Your task to perform on an android device: Search for flights from Boston to Zurich Image 0: 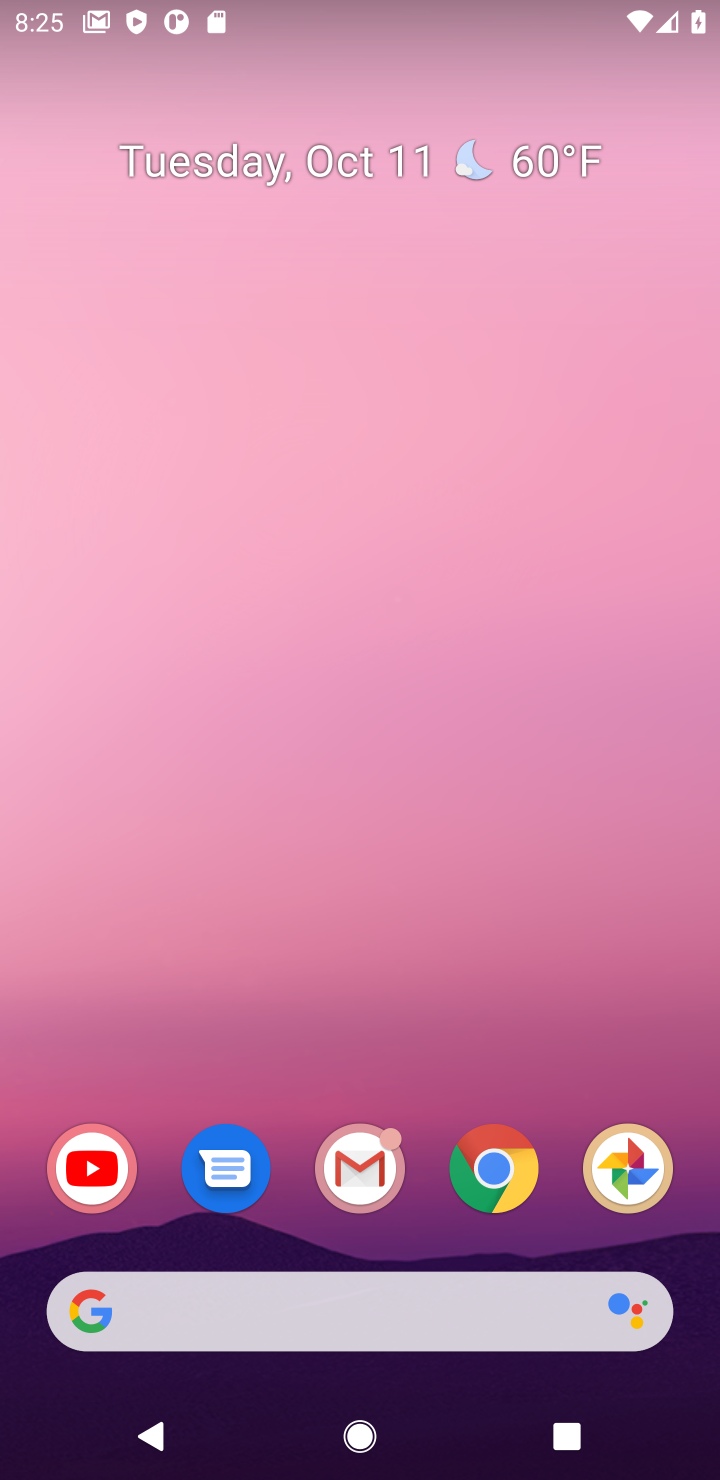
Step 0: click (484, 1160)
Your task to perform on an android device: Search for flights from Boston to Zurich Image 1: 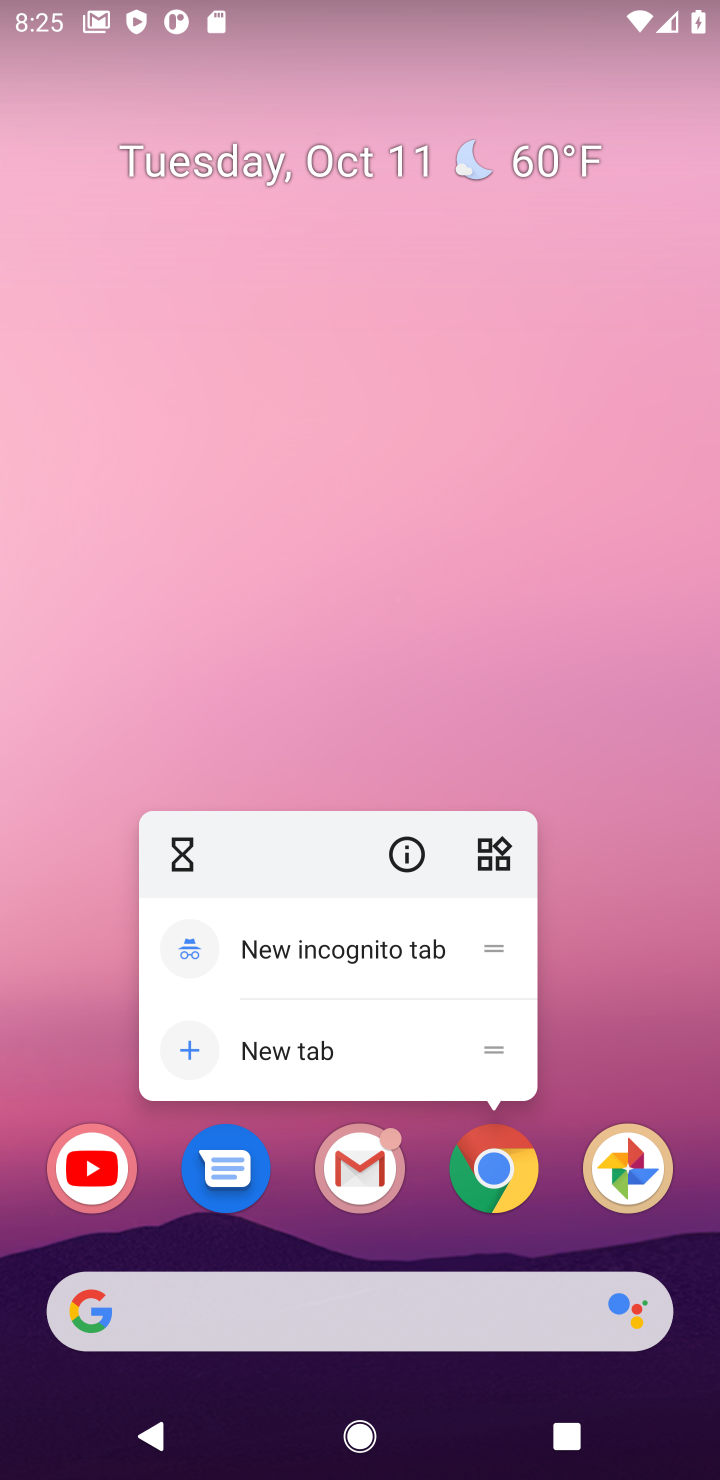
Step 1: click (506, 1177)
Your task to perform on an android device: Search for flights from Boston to Zurich Image 2: 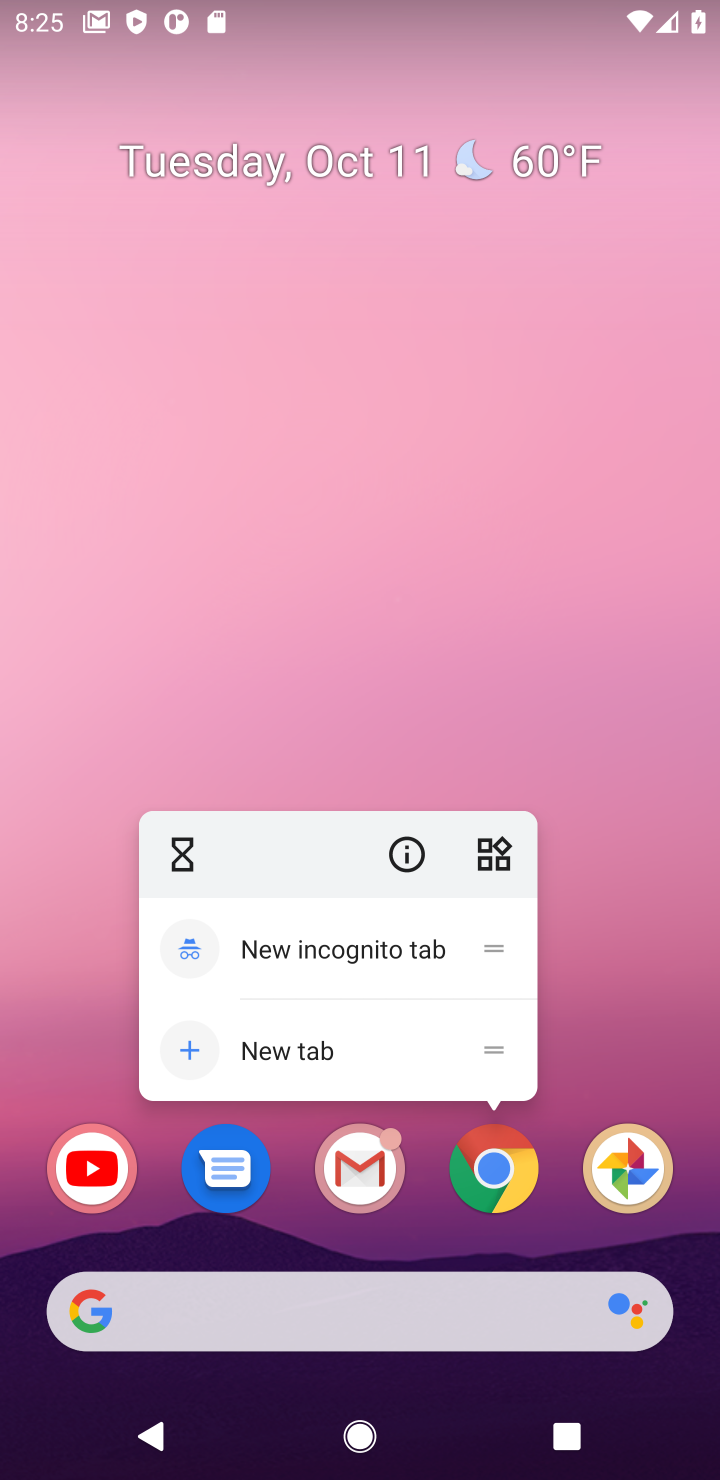
Step 2: press back button
Your task to perform on an android device: Search for flights from Boston to Zurich Image 3: 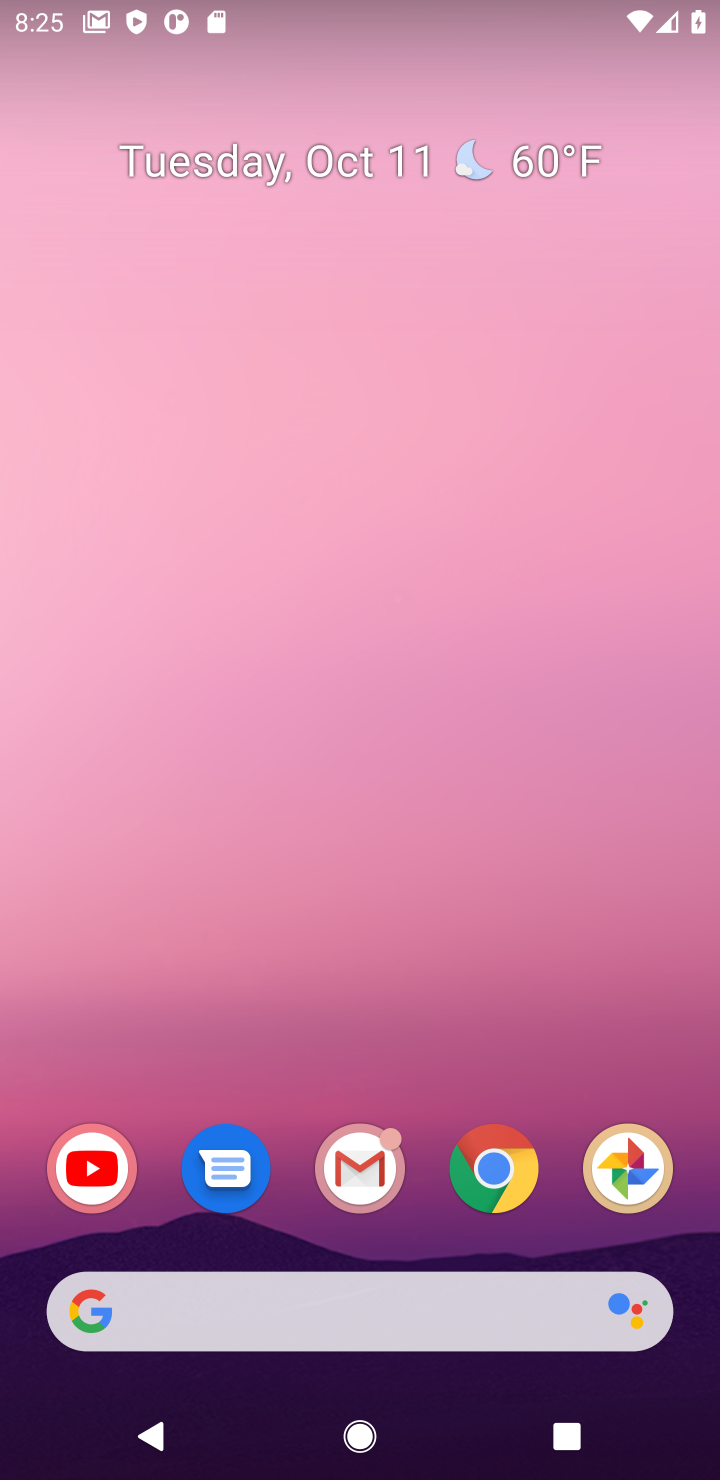
Step 3: click (506, 1182)
Your task to perform on an android device: Search for flights from Boston to Zurich Image 4: 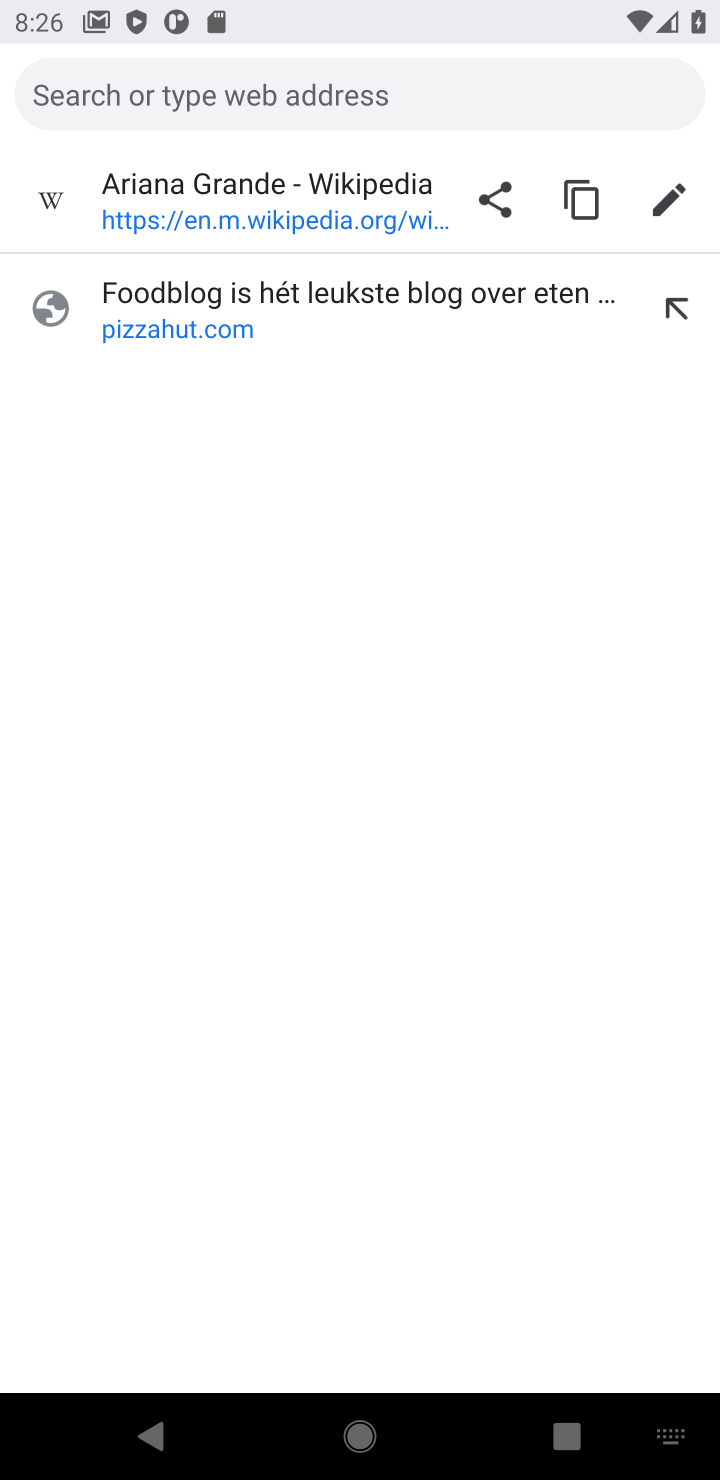
Step 4: type "flight from boston to zurich"
Your task to perform on an android device: Search for flights from Boston to Zurich Image 5: 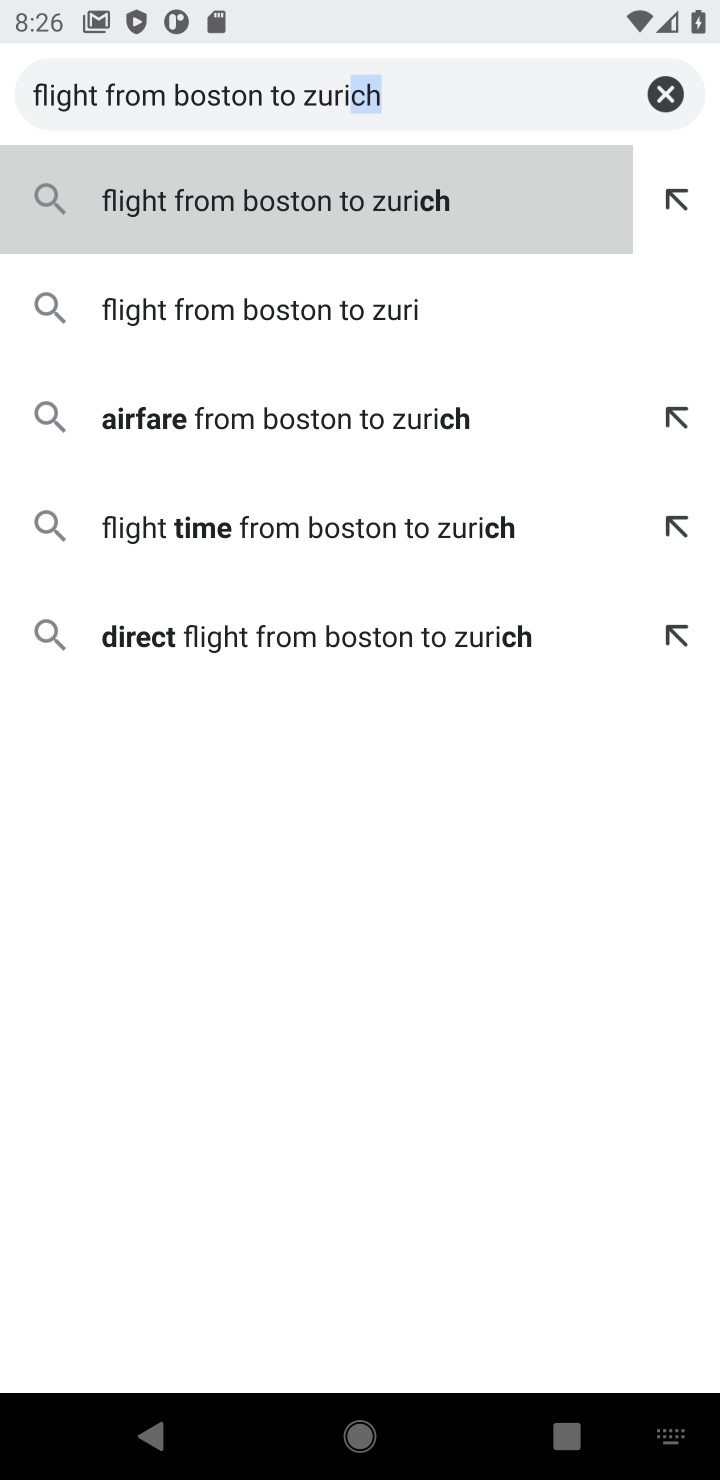
Step 5: click (438, 182)
Your task to perform on an android device: Search for flights from Boston to Zurich Image 6: 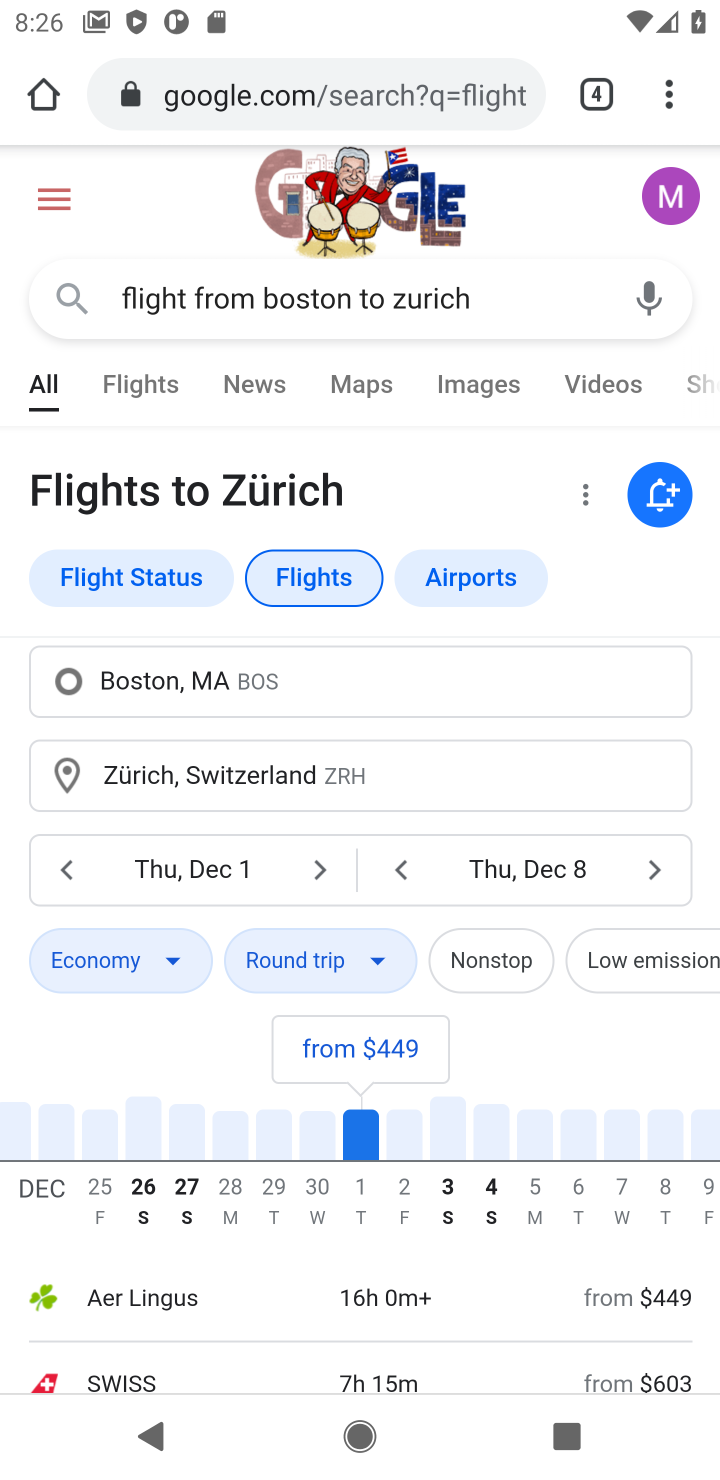
Step 6: drag from (507, 1091) to (507, 570)
Your task to perform on an android device: Search for flights from Boston to Zurich Image 7: 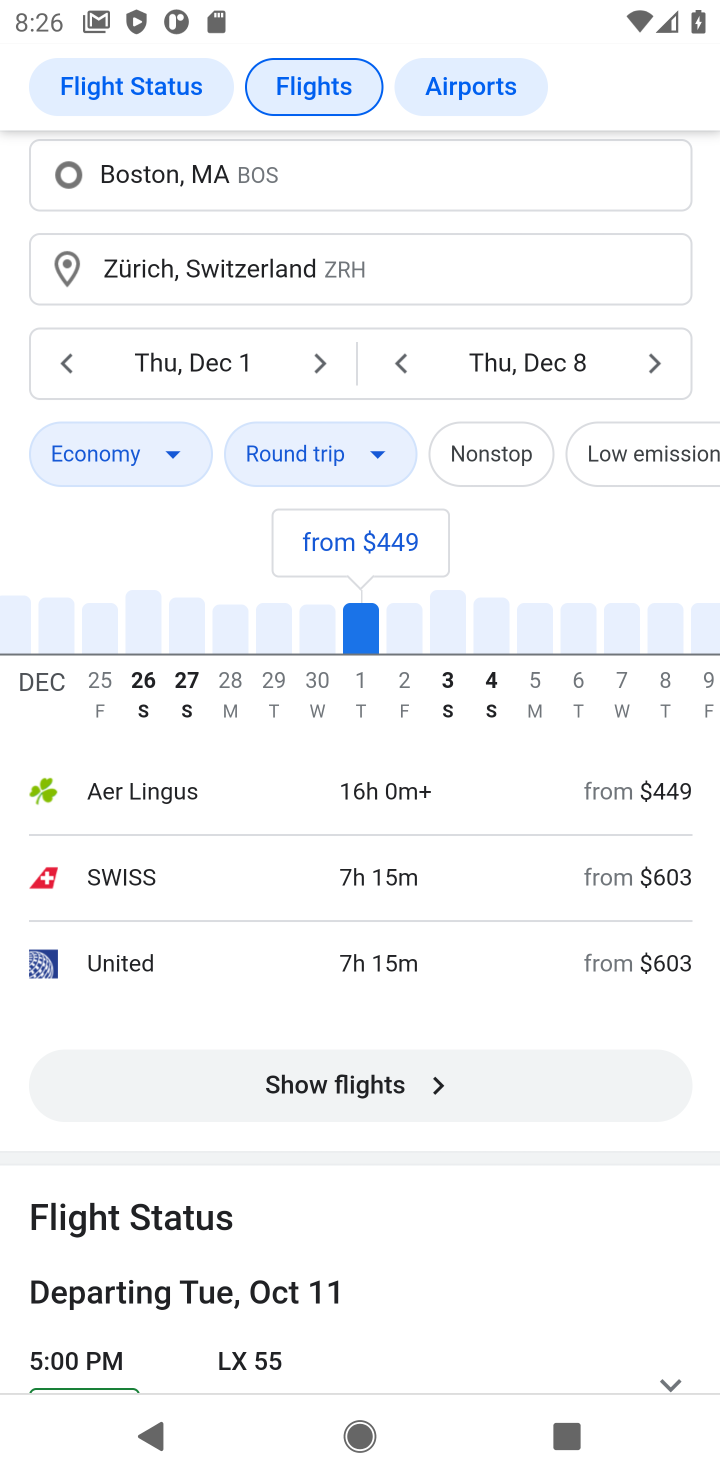
Step 7: click (391, 1083)
Your task to perform on an android device: Search for flights from Boston to Zurich Image 8: 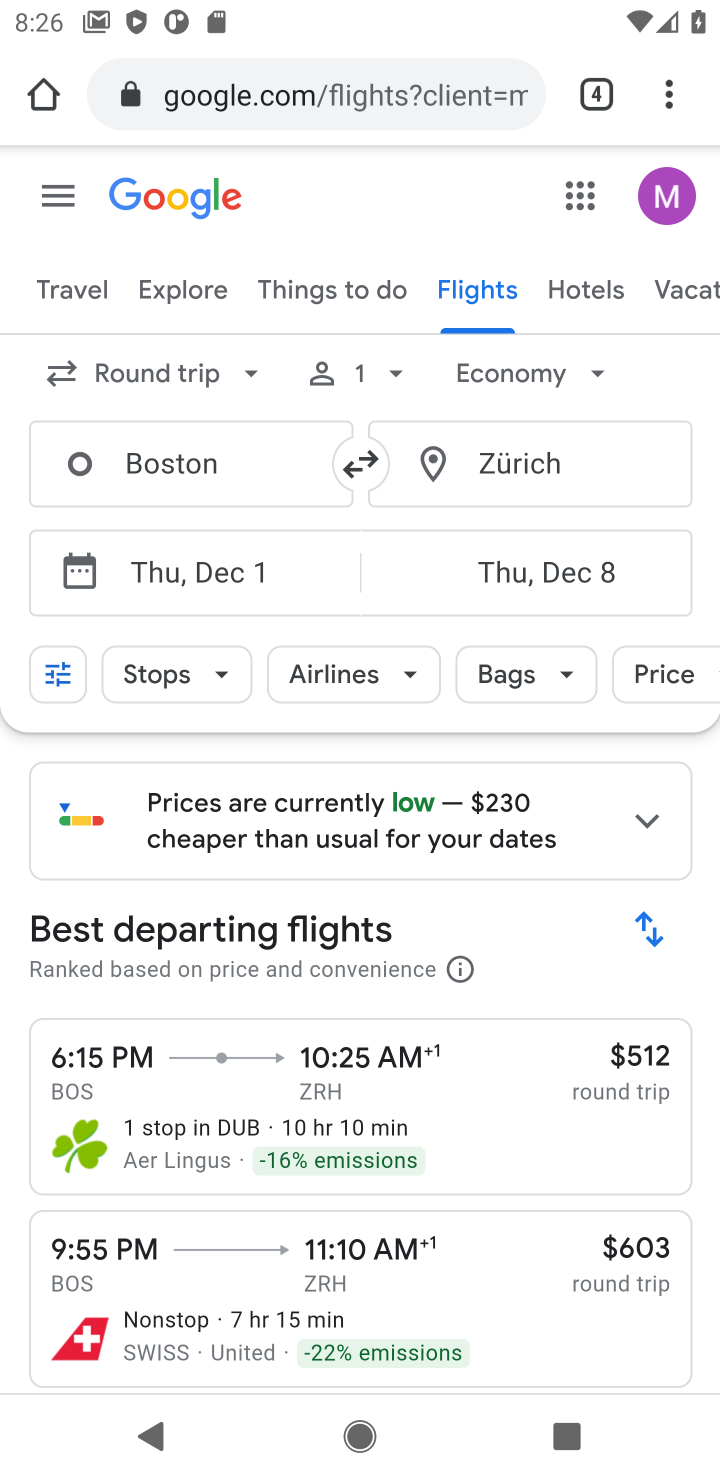
Step 8: task complete